Your task to perform on an android device: Open Reddit.com Image 0: 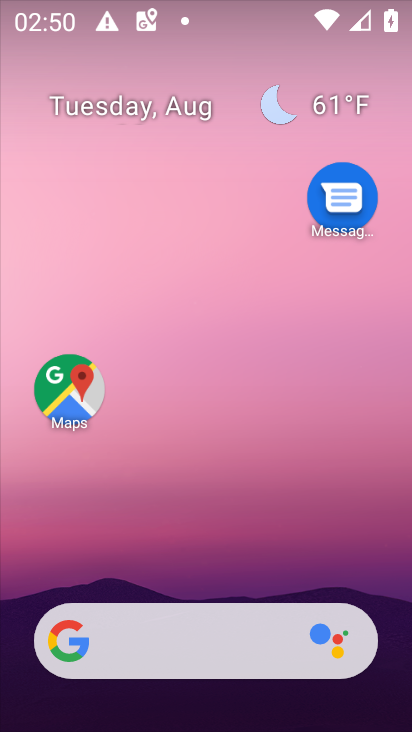
Step 0: click (180, 616)
Your task to perform on an android device: Open Reddit.com Image 1: 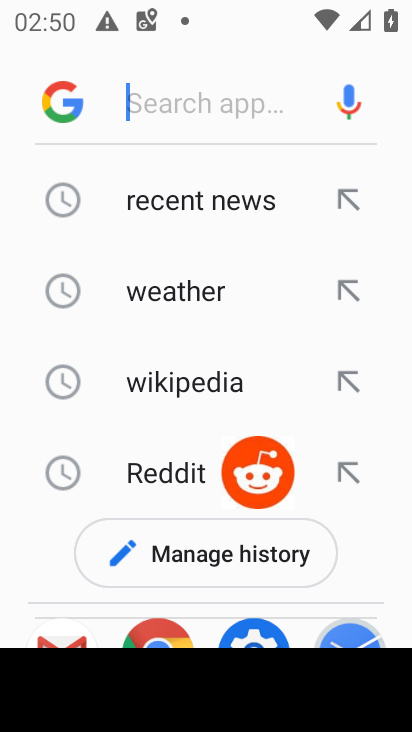
Step 1: click (200, 479)
Your task to perform on an android device: Open Reddit.com Image 2: 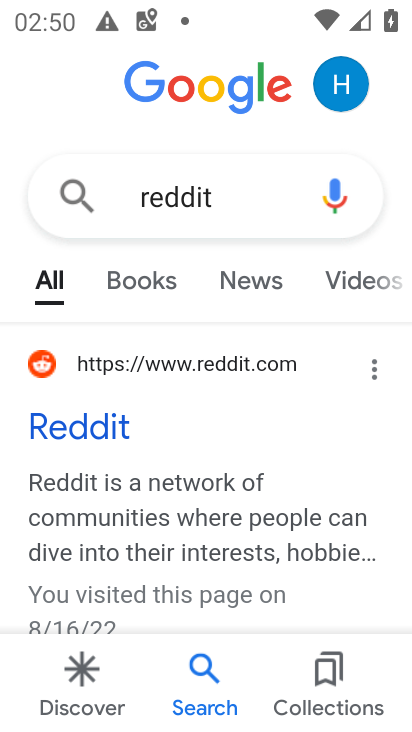
Step 2: click (132, 428)
Your task to perform on an android device: Open Reddit.com Image 3: 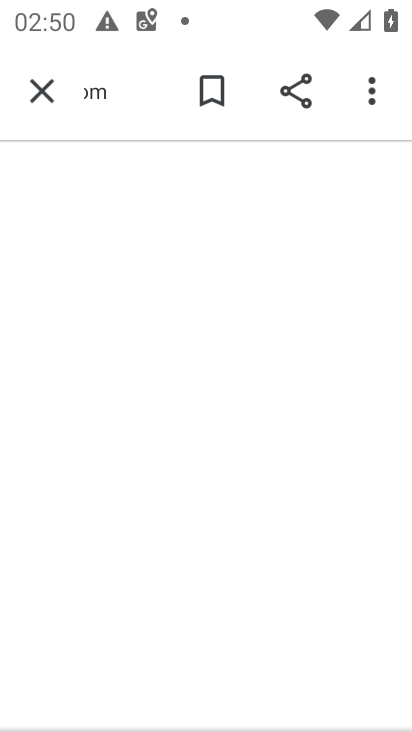
Step 3: task complete